Your task to perform on an android device: Show me popular games on the Play Store Image 0: 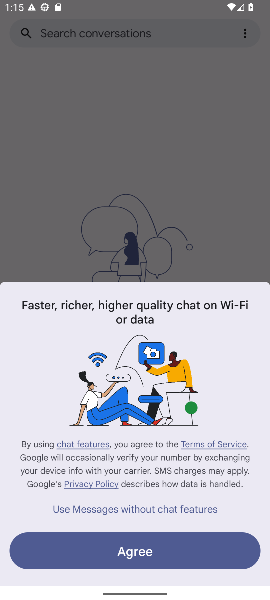
Step 0: press home button
Your task to perform on an android device: Show me popular games on the Play Store Image 1: 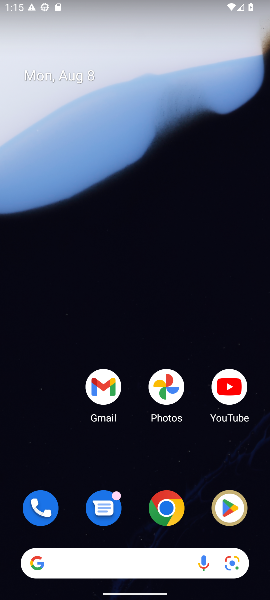
Step 1: click (238, 511)
Your task to perform on an android device: Show me popular games on the Play Store Image 2: 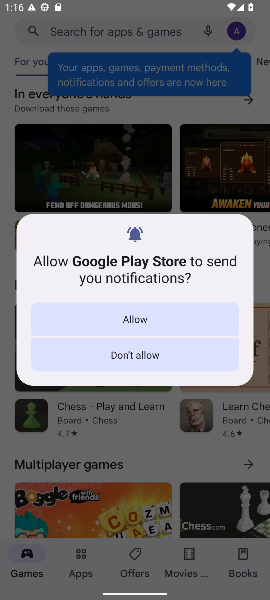
Step 2: click (138, 327)
Your task to perform on an android device: Show me popular games on the Play Store Image 3: 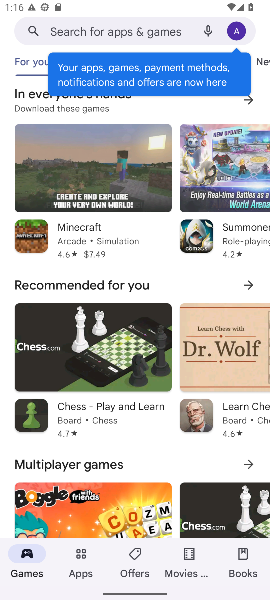
Step 3: task complete